Your task to perform on an android device: allow notifications from all sites in the chrome app Image 0: 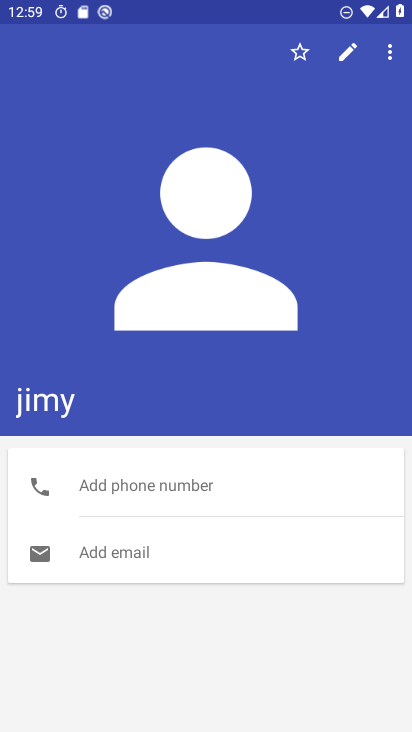
Step 0: press home button
Your task to perform on an android device: allow notifications from all sites in the chrome app Image 1: 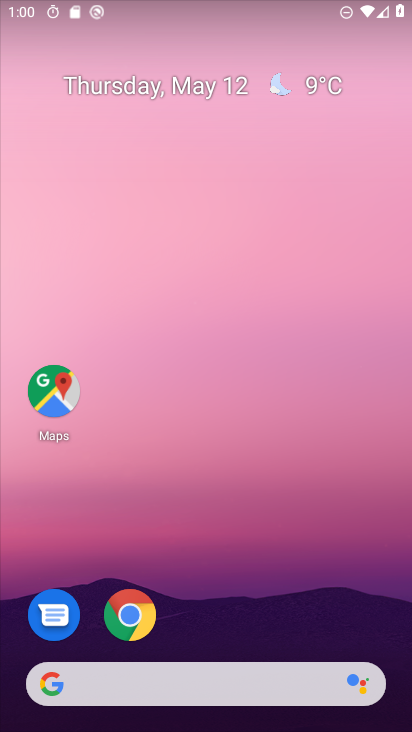
Step 1: drag from (265, 576) to (315, 156)
Your task to perform on an android device: allow notifications from all sites in the chrome app Image 2: 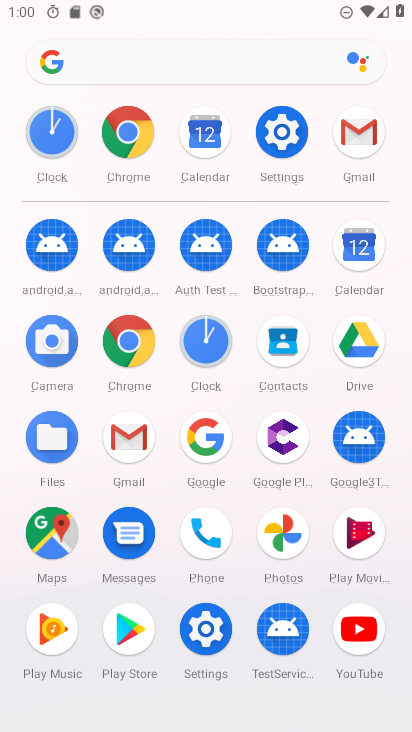
Step 2: click (134, 341)
Your task to perform on an android device: allow notifications from all sites in the chrome app Image 3: 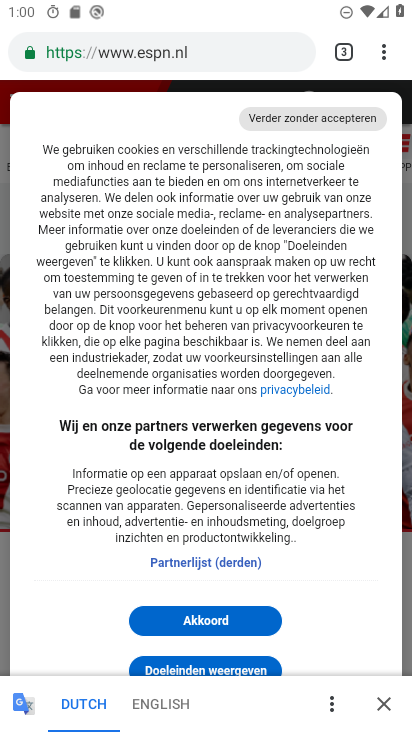
Step 3: drag from (381, 47) to (218, 632)
Your task to perform on an android device: allow notifications from all sites in the chrome app Image 4: 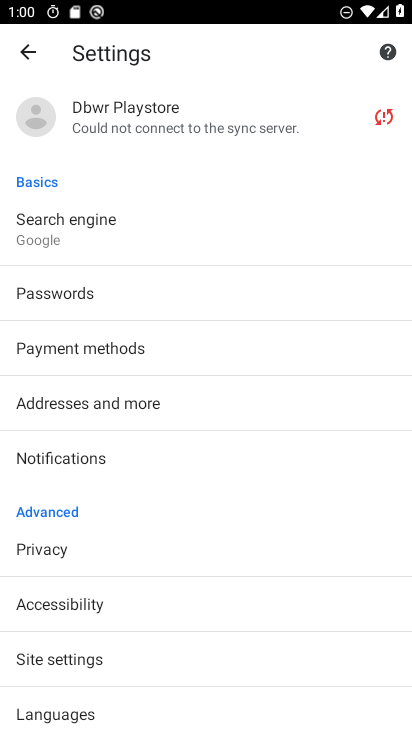
Step 4: click (36, 463)
Your task to perform on an android device: allow notifications from all sites in the chrome app Image 5: 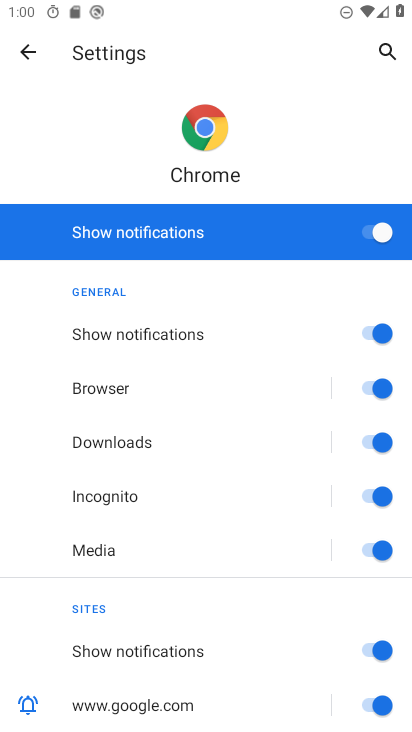
Step 5: task complete